Your task to perform on an android device: Go to internet settings Image 0: 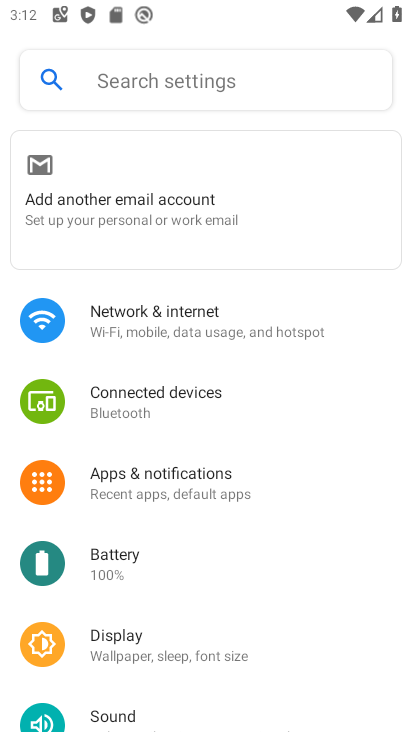
Step 0: click (121, 334)
Your task to perform on an android device: Go to internet settings Image 1: 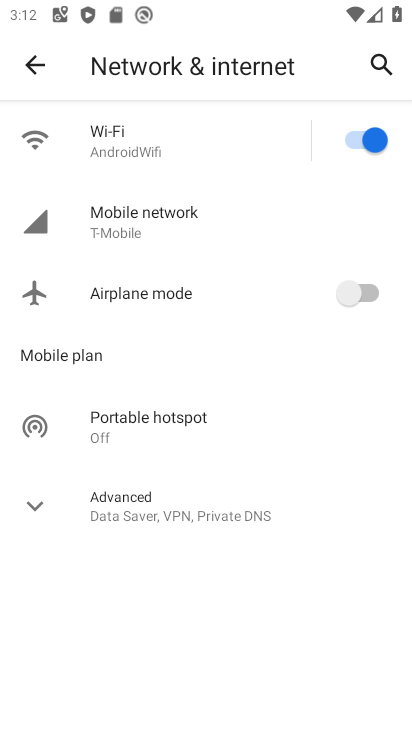
Step 1: click (103, 233)
Your task to perform on an android device: Go to internet settings Image 2: 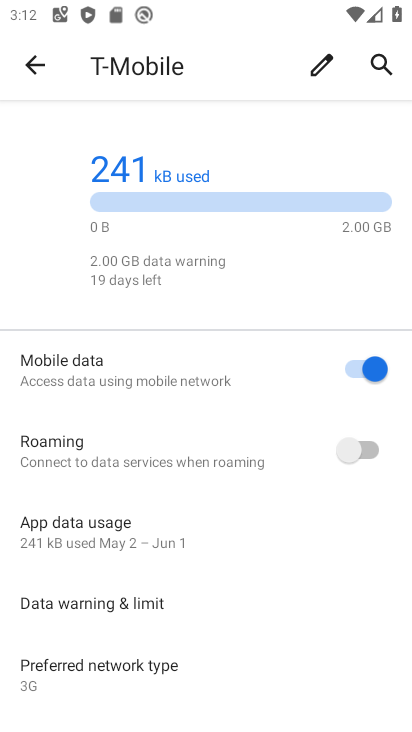
Step 2: task complete